Your task to perform on an android device: toggle show notifications on the lock screen Image 0: 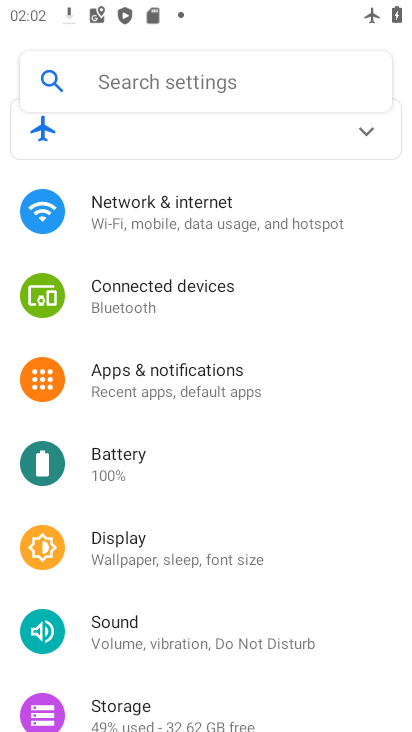
Step 0: click (236, 384)
Your task to perform on an android device: toggle show notifications on the lock screen Image 1: 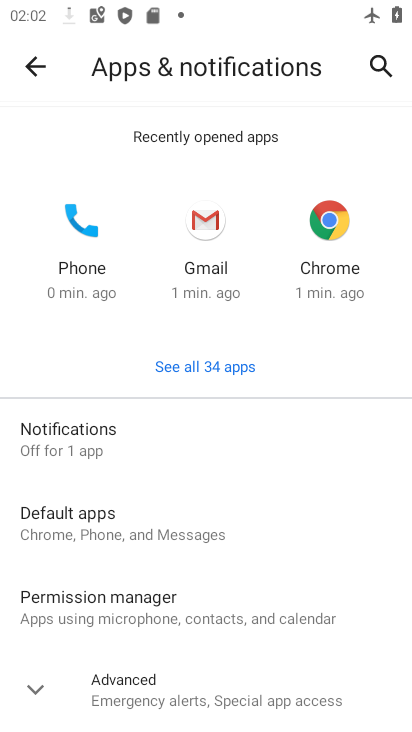
Step 1: click (193, 437)
Your task to perform on an android device: toggle show notifications on the lock screen Image 2: 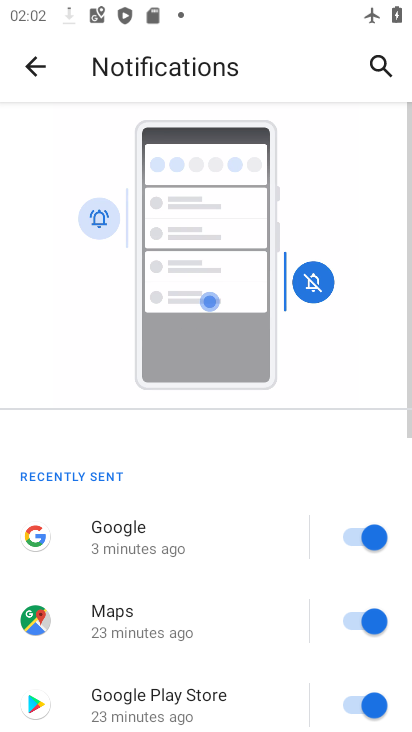
Step 2: drag from (234, 570) to (213, 108)
Your task to perform on an android device: toggle show notifications on the lock screen Image 3: 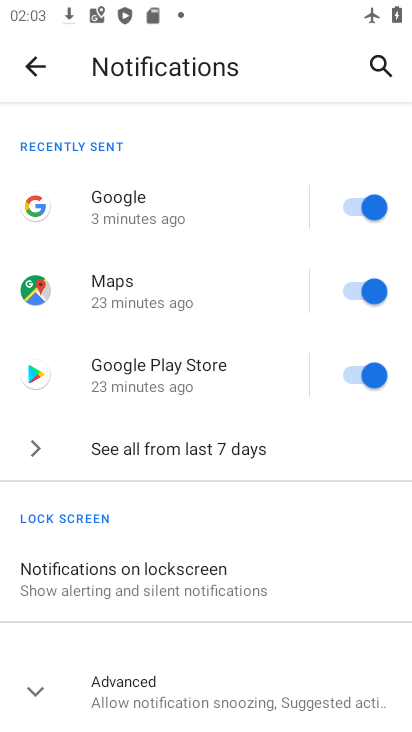
Step 3: click (118, 591)
Your task to perform on an android device: toggle show notifications on the lock screen Image 4: 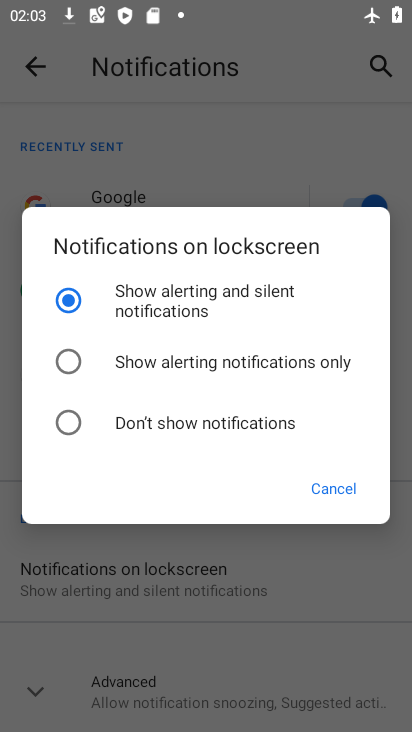
Step 4: click (63, 416)
Your task to perform on an android device: toggle show notifications on the lock screen Image 5: 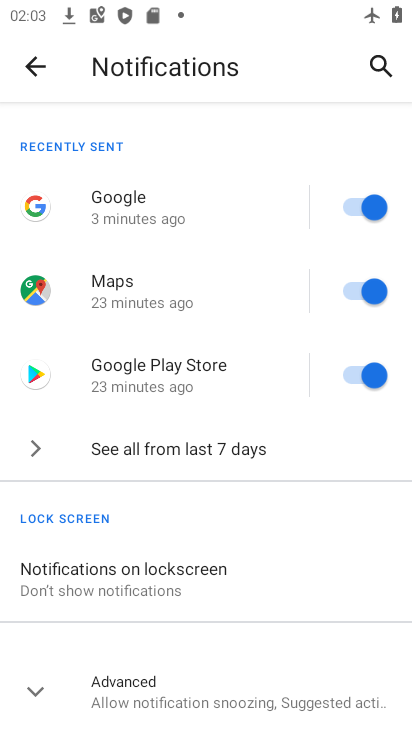
Step 5: task complete